Your task to perform on an android device: Open Google Image 0: 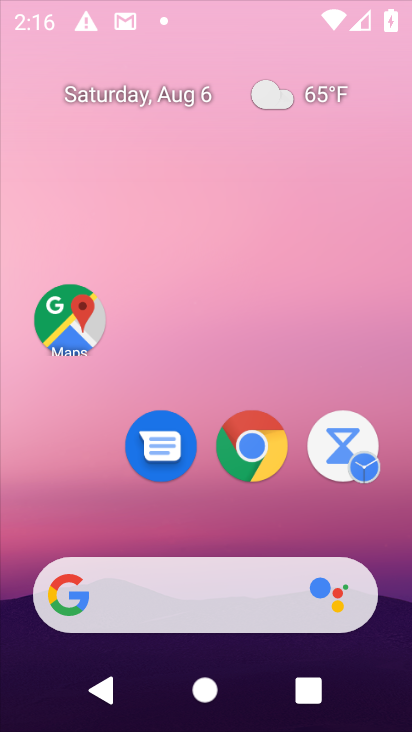
Step 0: press back button
Your task to perform on an android device: Open Google Image 1: 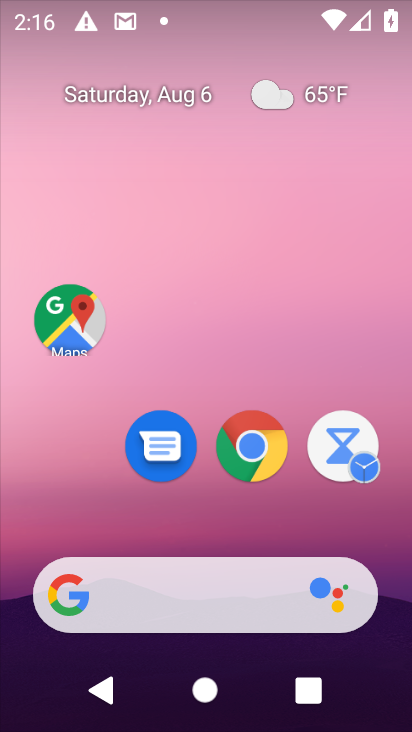
Step 1: press back button
Your task to perform on an android device: Open Google Image 2: 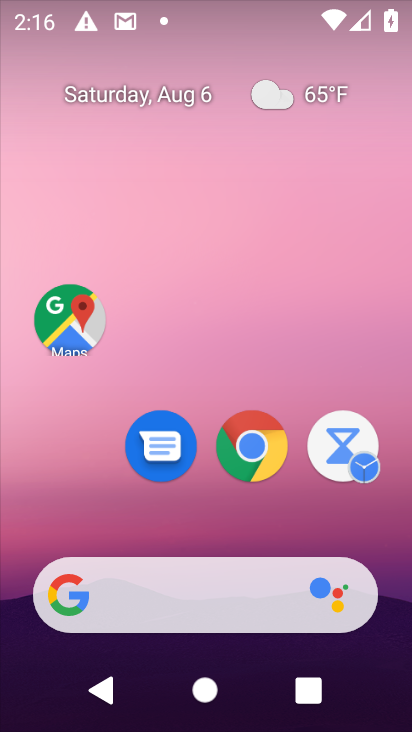
Step 2: drag from (114, 190) to (161, 214)
Your task to perform on an android device: Open Google Image 3: 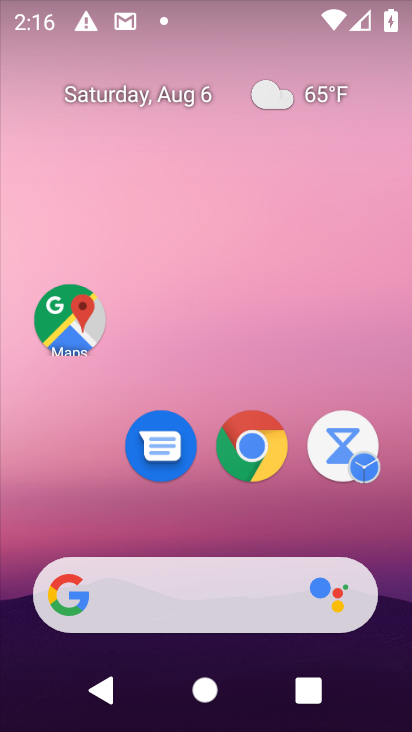
Step 3: drag from (249, 542) to (117, 18)
Your task to perform on an android device: Open Google Image 4: 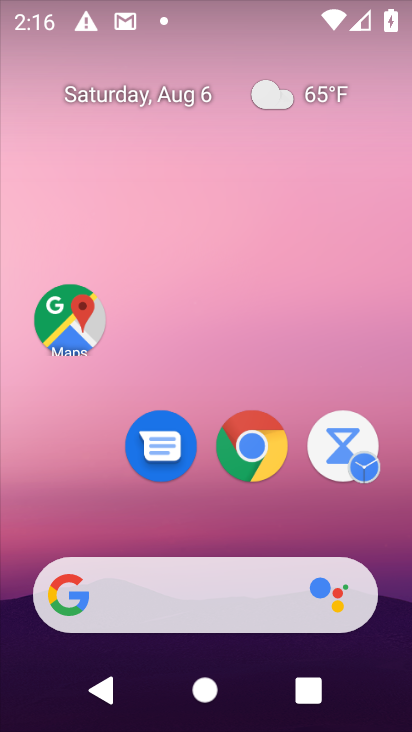
Step 4: drag from (242, 402) to (164, 30)
Your task to perform on an android device: Open Google Image 5: 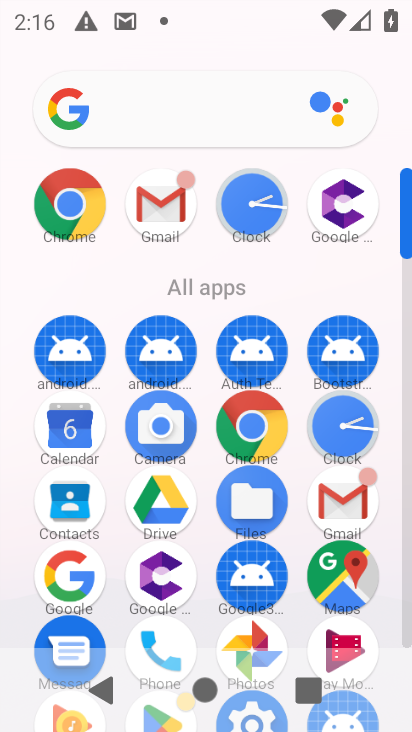
Step 5: click (229, 306)
Your task to perform on an android device: Open Google Image 6: 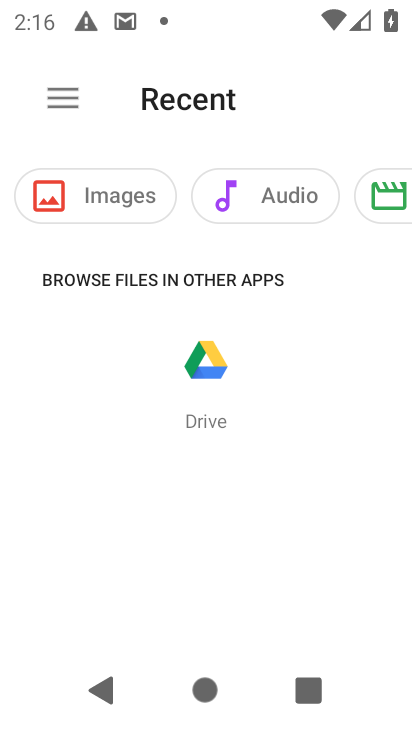
Step 6: press back button
Your task to perform on an android device: Open Google Image 7: 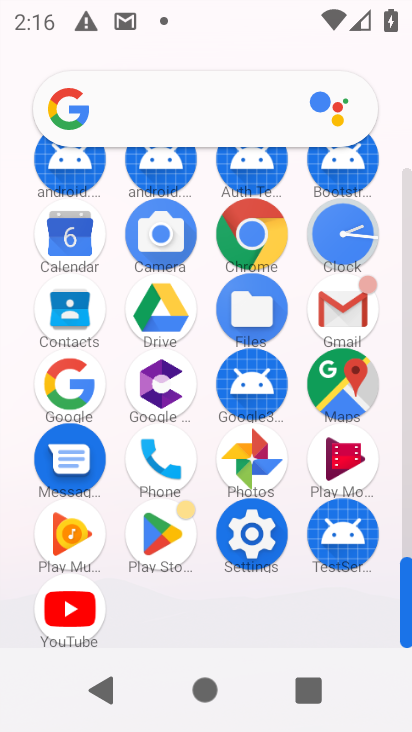
Step 7: click (79, 395)
Your task to perform on an android device: Open Google Image 8: 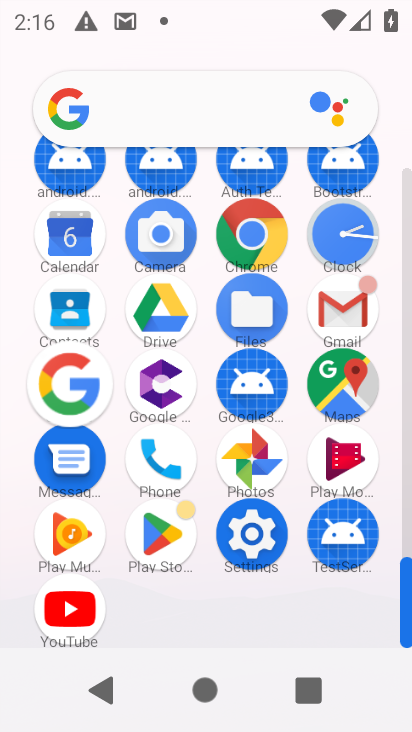
Step 8: click (78, 395)
Your task to perform on an android device: Open Google Image 9: 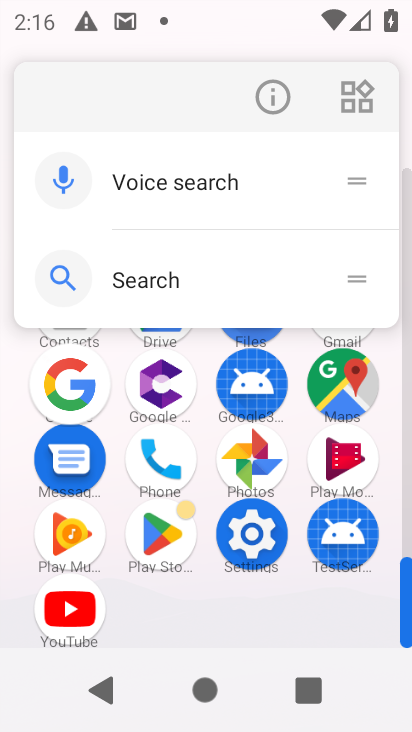
Step 9: click (78, 395)
Your task to perform on an android device: Open Google Image 10: 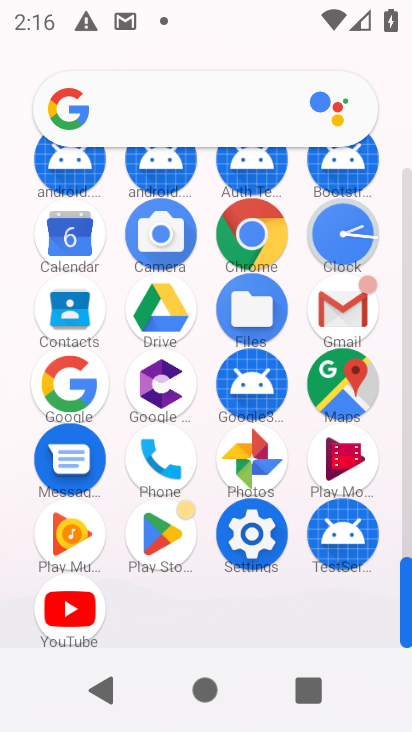
Step 10: click (78, 395)
Your task to perform on an android device: Open Google Image 11: 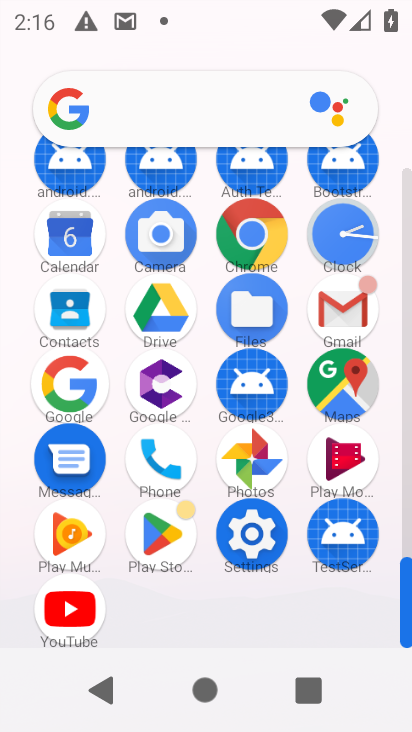
Step 11: click (76, 394)
Your task to perform on an android device: Open Google Image 12: 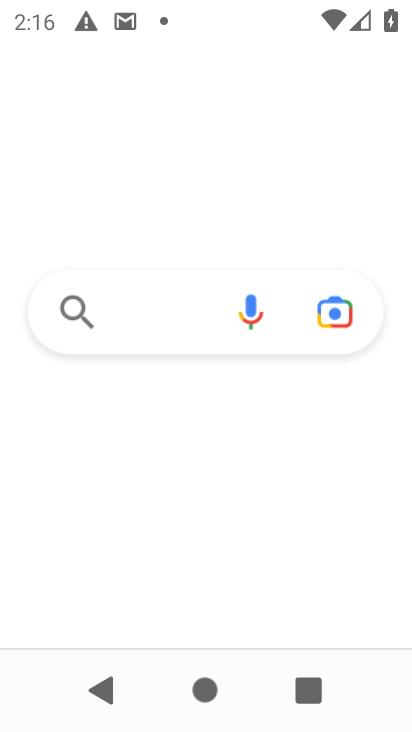
Step 12: click (76, 394)
Your task to perform on an android device: Open Google Image 13: 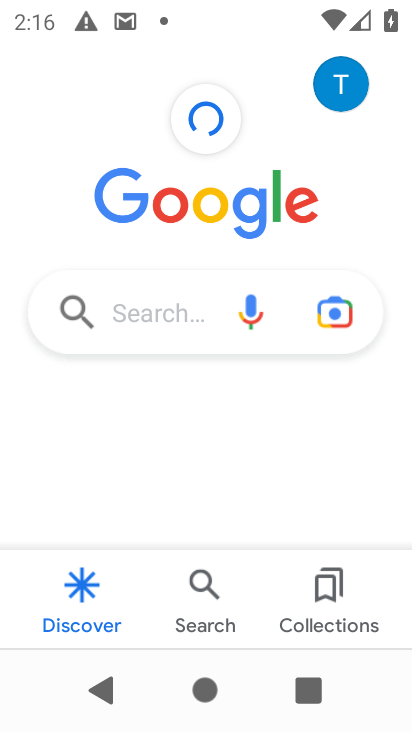
Step 13: task complete